Your task to perform on an android device: turn on wifi Image 0: 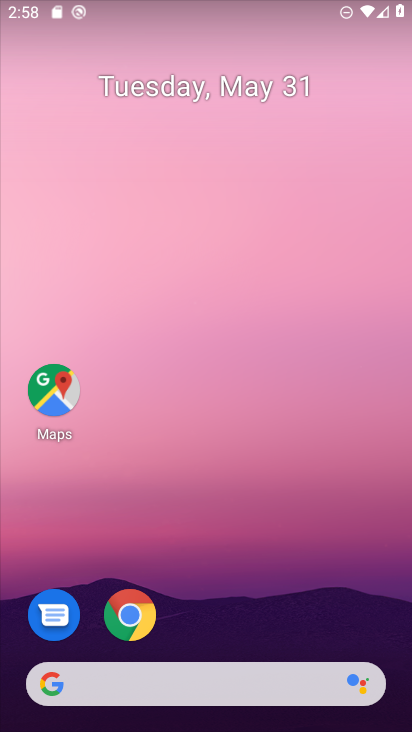
Step 0: drag from (259, 636) to (264, 114)
Your task to perform on an android device: turn on wifi Image 1: 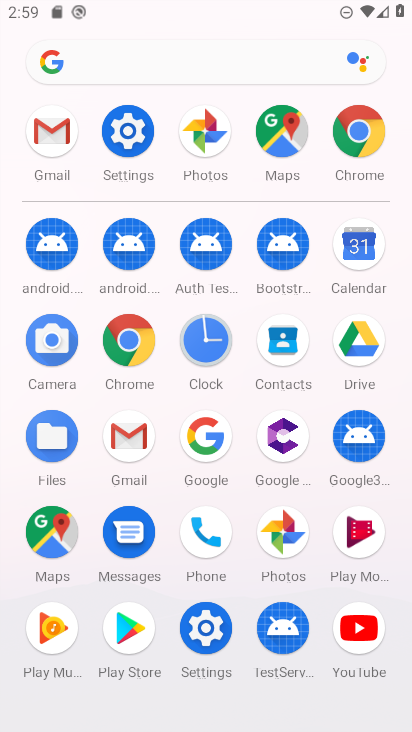
Step 1: click (123, 126)
Your task to perform on an android device: turn on wifi Image 2: 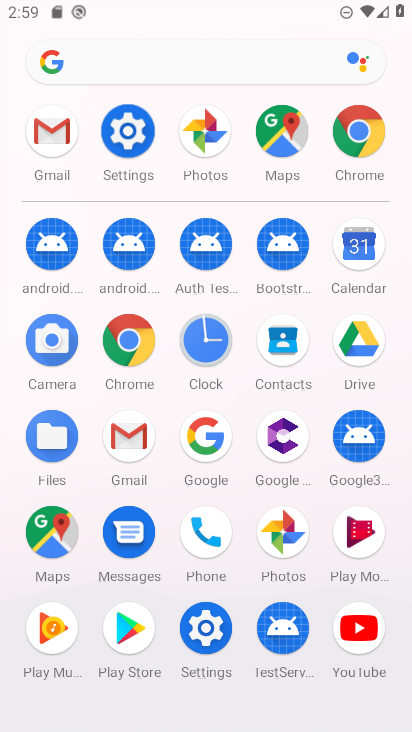
Step 2: click (123, 126)
Your task to perform on an android device: turn on wifi Image 3: 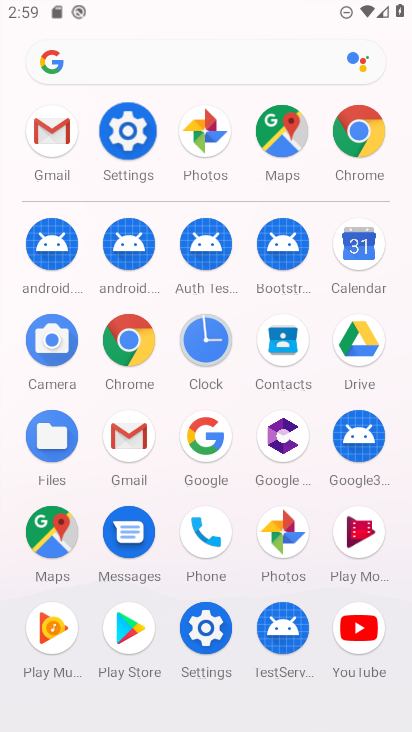
Step 3: click (123, 126)
Your task to perform on an android device: turn on wifi Image 4: 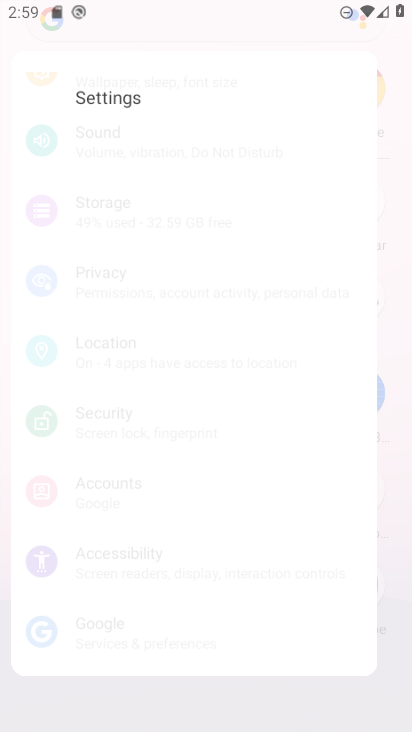
Step 4: click (123, 126)
Your task to perform on an android device: turn on wifi Image 5: 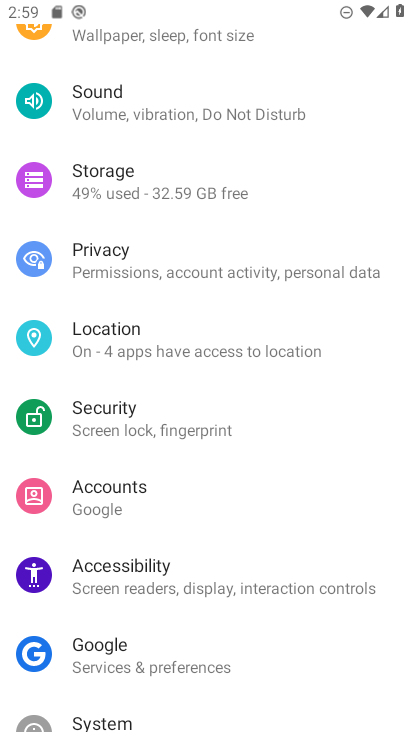
Step 5: click (125, 128)
Your task to perform on an android device: turn on wifi Image 6: 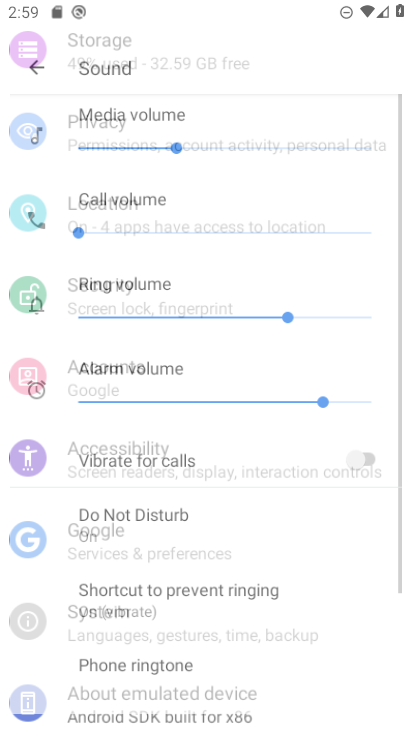
Step 6: drag from (125, 128) to (231, 595)
Your task to perform on an android device: turn on wifi Image 7: 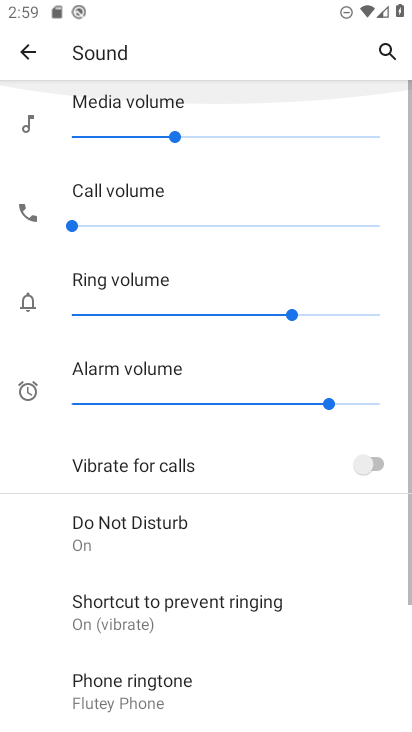
Step 7: drag from (205, 244) to (268, 451)
Your task to perform on an android device: turn on wifi Image 8: 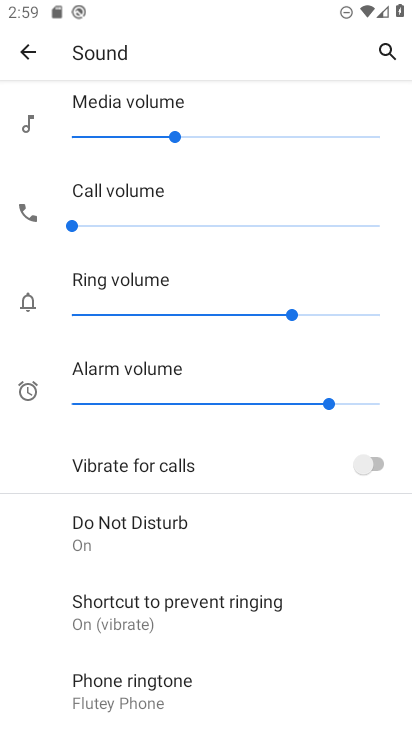
Step 8: click (30, 51)
Your task to perform on an android device: turn on wifi Image 9: 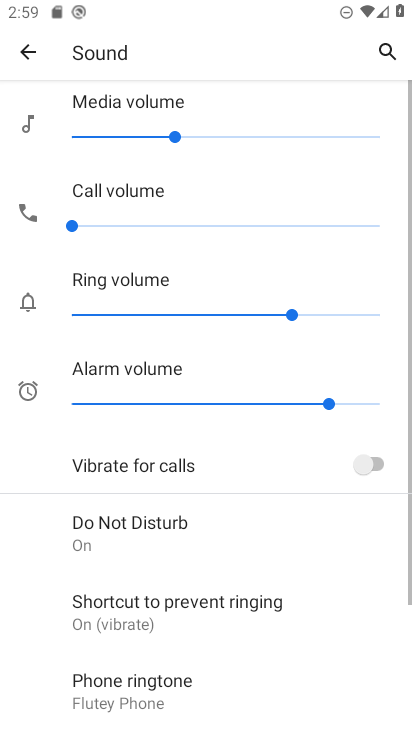
Step 9: drag from (186, 206) to (213, 344)
Your task to perform on an android device: turn on wifi Image 10: 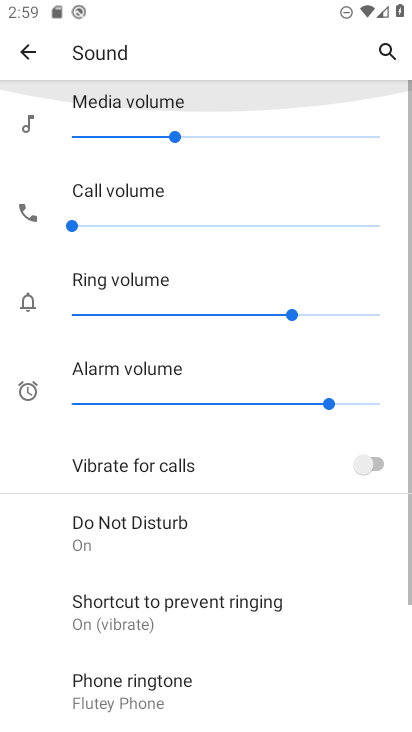
Step 10: drag from (142, 165) to (208, 445)
Your task to perform on an android device: turn on wifi Image 11: 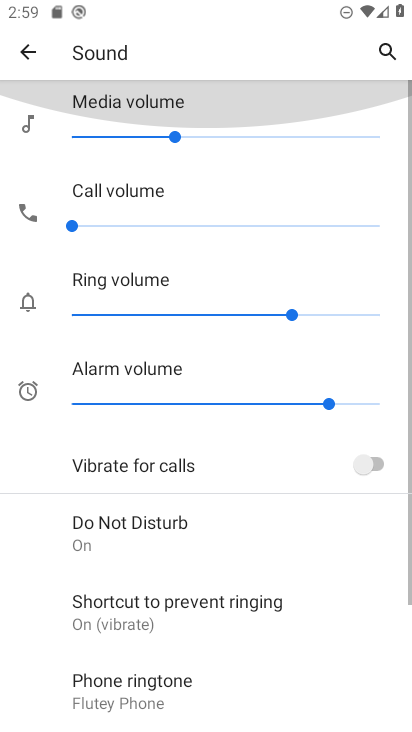
Step 11: drag from (155, 227) to (204, 550)
Your task to perform on an android device: turn on wifi Image 12: 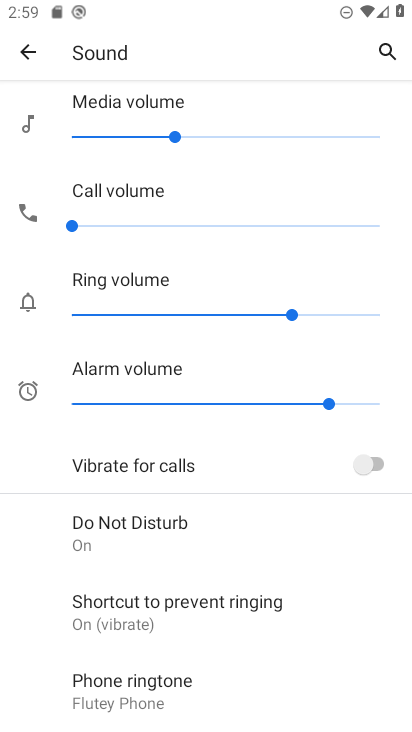
Step 12: click (31, 49)
Your task to perform on an android device: turn on wifi Image 13: 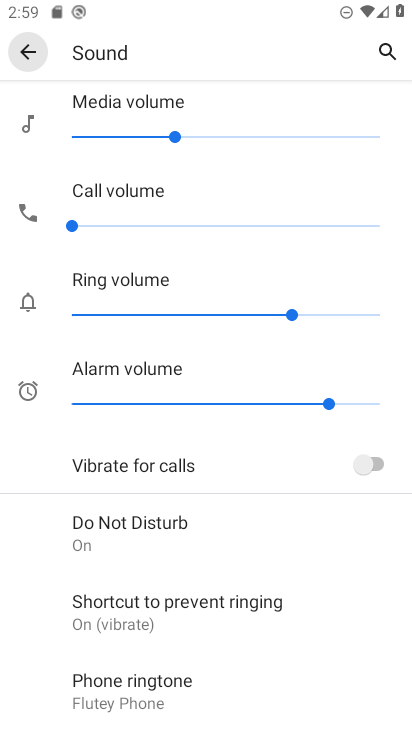
Step 13: click (25, 45)
Your task to perform on an android device: turn on wifi Image 14: 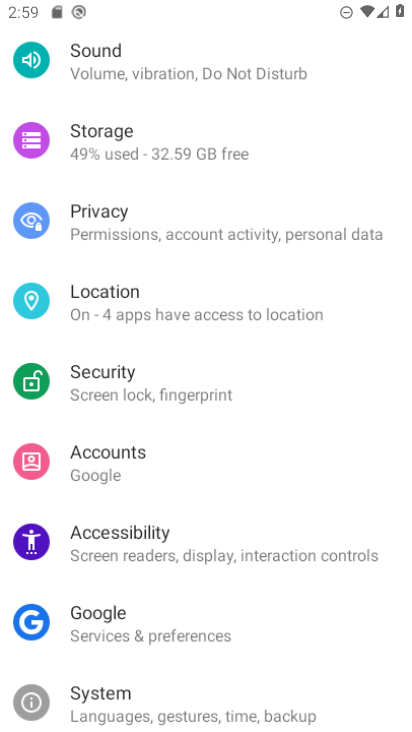
Step 14: click (23, 46)
Your task to perform on an android device: turn on wifi Image 15: 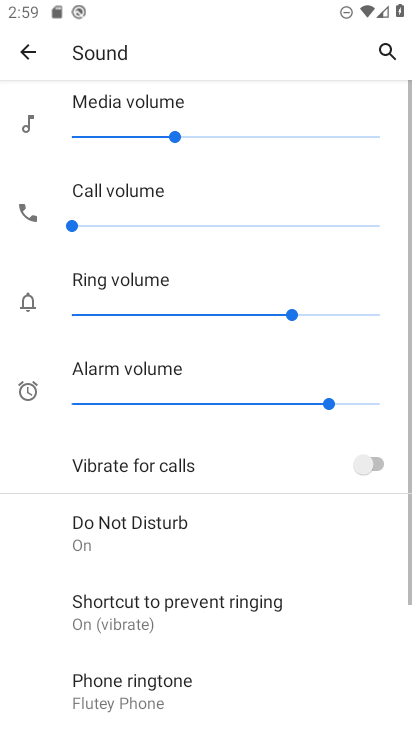
Step 15: drag from (153, 128) to (154, 448)
Your task to perform on an android device: turn on wifi Image 16: 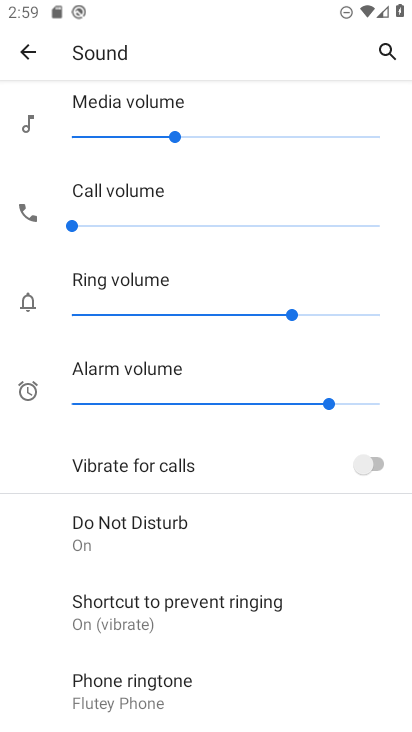
Step 16: click (31, 49)
Your task to perform on an android device: turn on wifi Image 17: 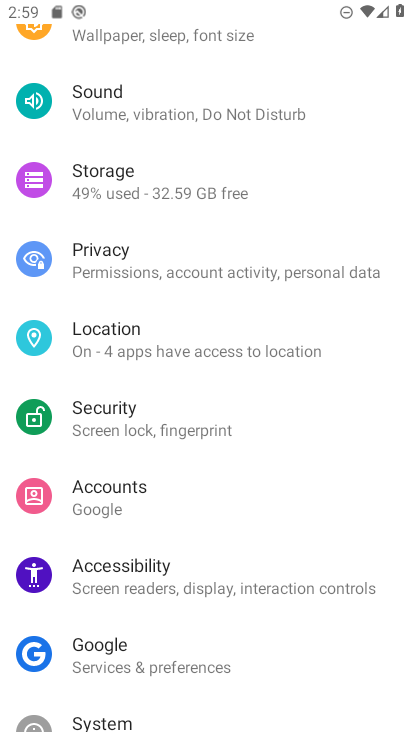
Step 17: drag from (136, 106) to (239, 463)
Your task to perform on an android device: turn on wifi Image 18: 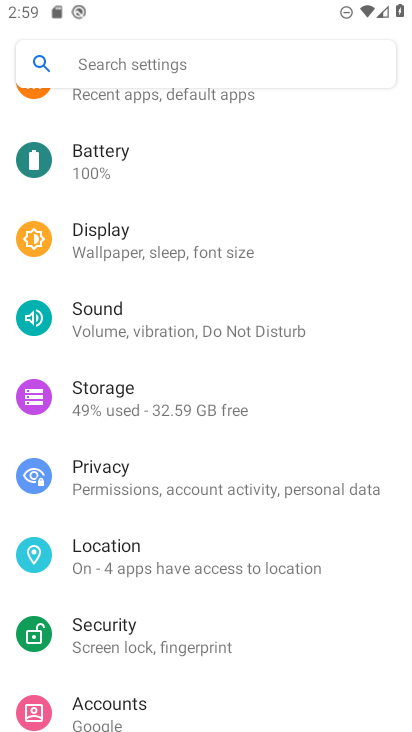
Step 18: drag from (166, 107) to (244, 485)
Your task to perform on an android device: turn on wifi Image 19: 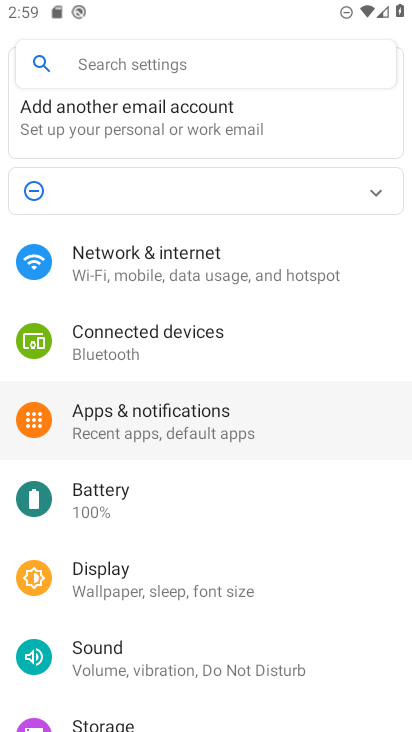
Step 19: drag from (151, 150) to (233, 443)
Your task to perform on an android device: turn on wifi Image 20: 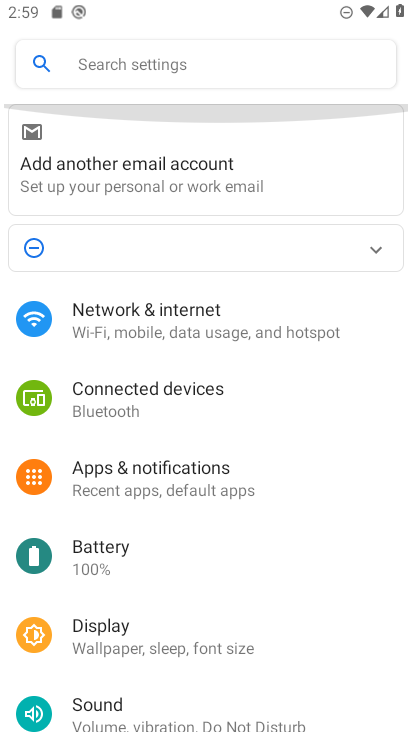
Step 20: drag from (180, 209) to (129, 540)
Your task to perform on an android device: turn on wifi Image 21: 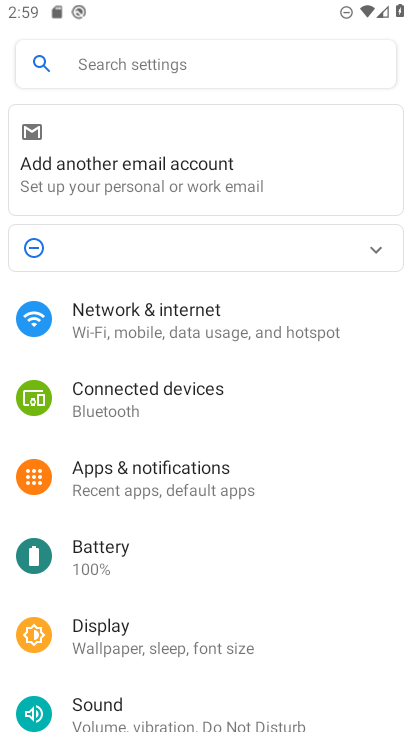
Step 21: click (143, 295)
Your task to perform on an android device: turn on wifi Image 22: 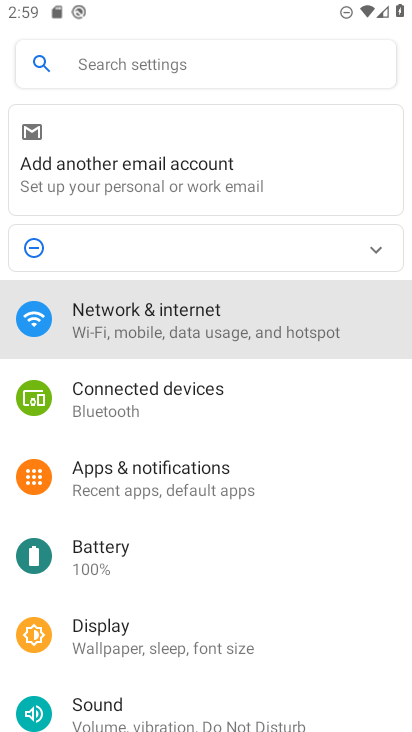
Step 22: click (151, 313)
Your task to perform on an android device: turn on wifi Image 23: 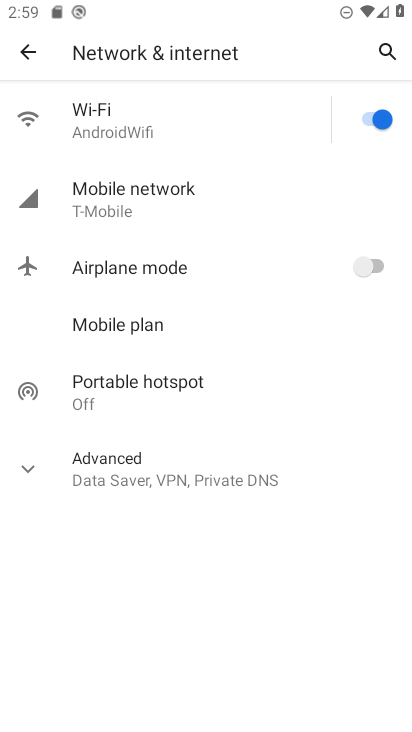
Step 23: task complete